Your task to perform on an android device: Show me popular videos on Youtube Image 0: 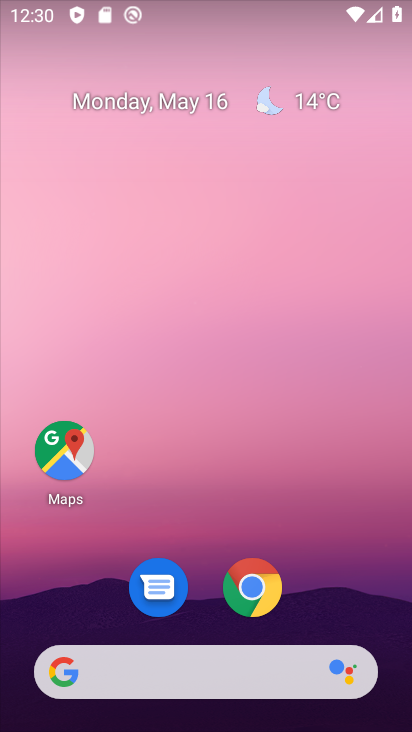
Step 0: drag from (238, 723) to (256, 194)
Your task to perform on an android device: Show me popular videos on Youtube Image 1: 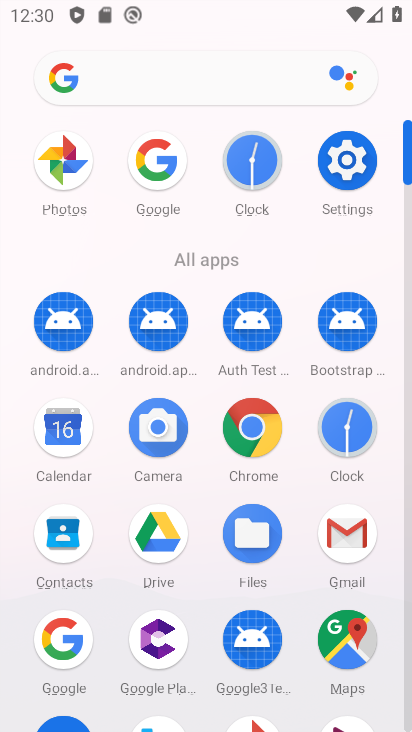
Step 1: drag from (195, 692) to (198, 290)
Your task to perform on an android device: Show me popular videos on Youtube Image 2: 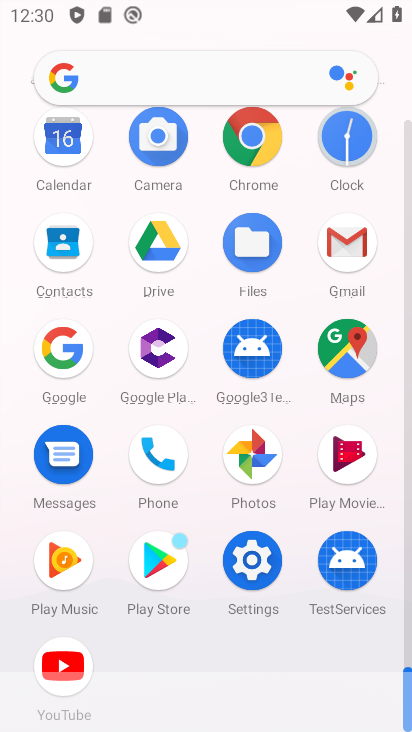
Step 2: click (65, 655)
Your task to perform on an android device: Show me popular videos on Youtube Image 3: 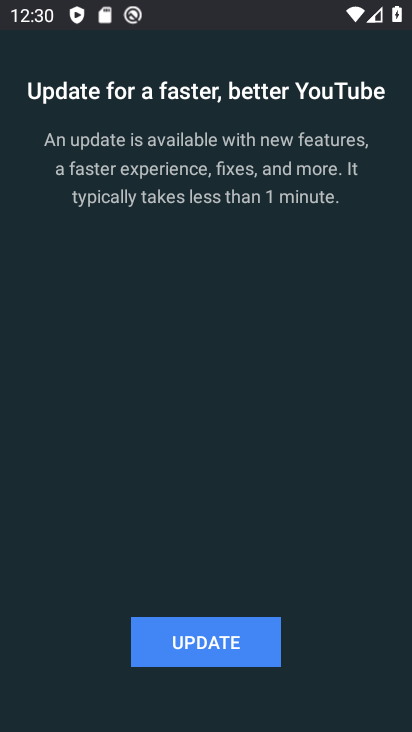
Step 3: task complete